Your task to perform on an android device: Open the stopwatch Image 0: 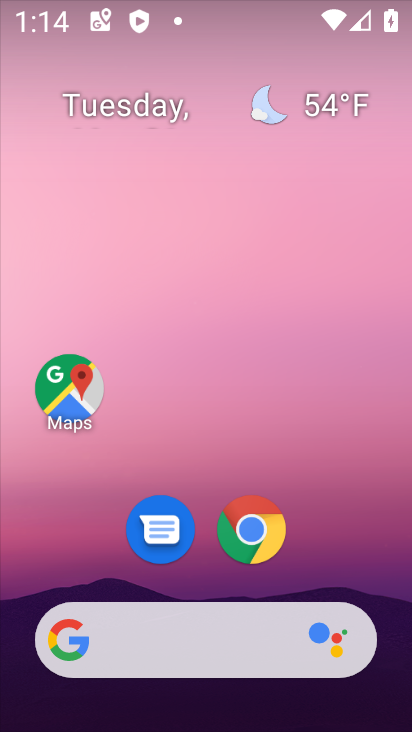
Step 0: drag from (337, 552) to (220, 106)
Your task to perform on an android device: Open the stopwatch Image 1: 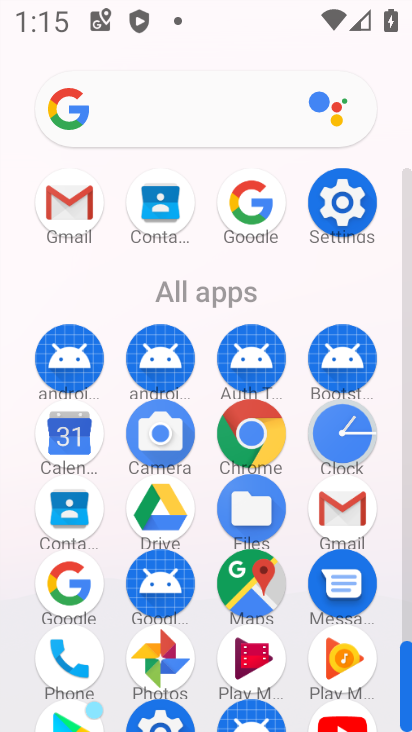
Step 1: click (342, 433)
Your task to perform on an android device: Open the stopwatch Image 2: 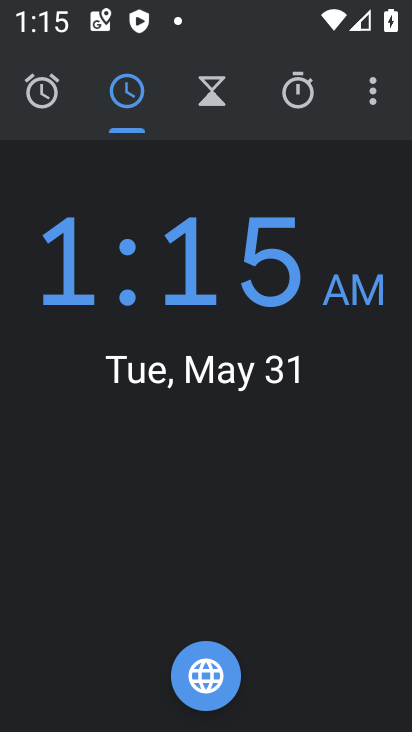
Step 2: click (299, 95)
Your task to perform on an android device: Open the stopwatch Image 3: 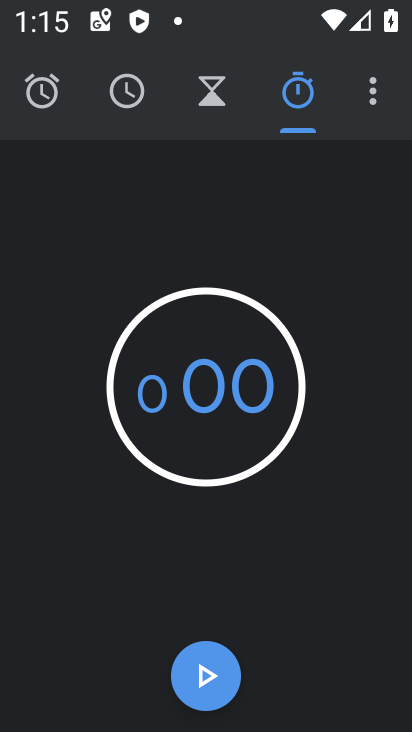
Step 3: task complete